Your task to perform on an android device: Search for vegetarian restaurants on Maps Image 0: 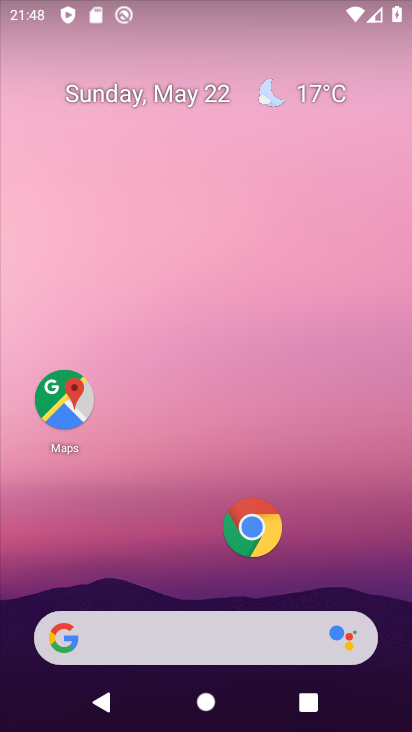
Step 0: click (64, 409)
Your task to perform on an android device: Search for vegetarian restaurants on Maps Image 1: 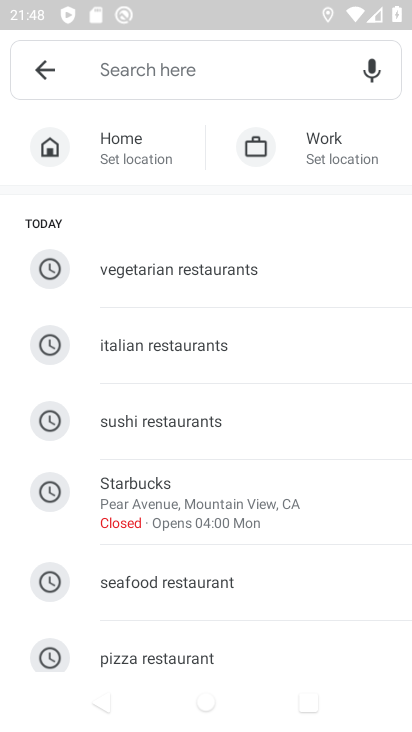
Step 1: click (196, 271)
Your task to perform on an android device: Search for vegetarian restaurants on Maps Image 2: 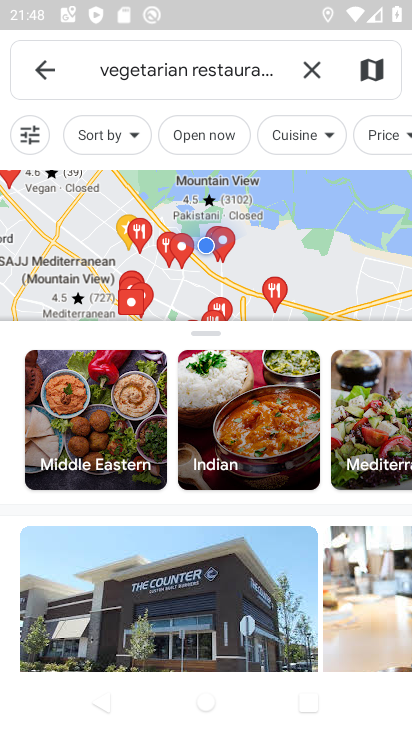
Step 2: task complete